Your task to perform on an android device: Show the shopping cart on walmart.com. Add alienware aurora to the cart on walmart.com Image 0: 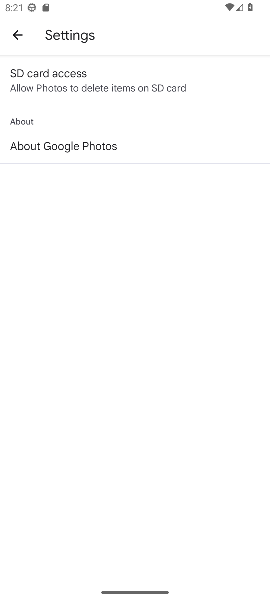
Step 0: press home button
Your task to perform on an android device: Show the shopping cart on walmart.com. Add alienware aurora to the cart on walmart.com Image 1: 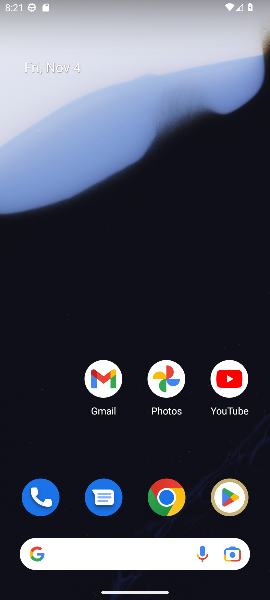
Step 1: click (167, 511)
Your task to perform on an android device: Show the shopping cart on walmart.com. Add alienware aurora to the cart on walmart.com Image 2: 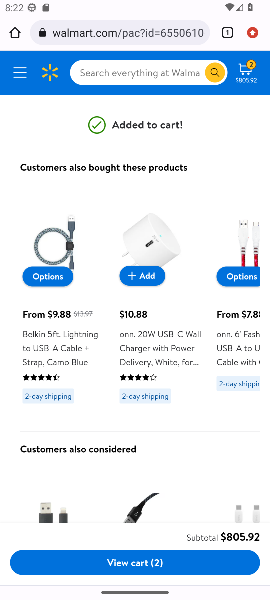
Step 2: click (254, 72)
Your task to perform on an android device: Show the shopping cart on walmart.com. Add alienware aurora to the cart on walmart.com Image 3: 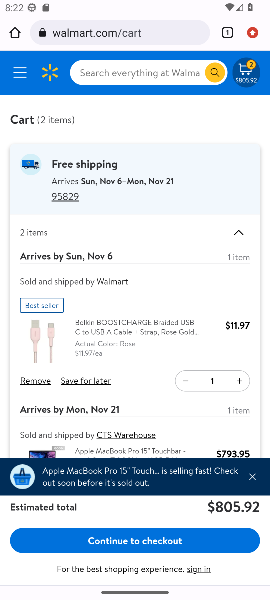
Step 3: click (147, 80)
Your task to perform on an android device: Show the shopping cart on walmart.com. Add alienware aurora to the cart on walmart.com Image 4: 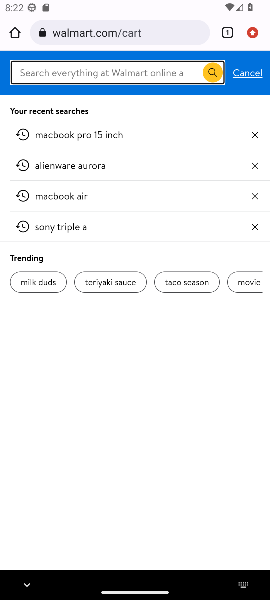
Step 4: type "alienware aurora"
Your task to perform on an android device: Show the shopping cart on walmart.com. Add alienware aurora to the cart on walmart.com Image 5: 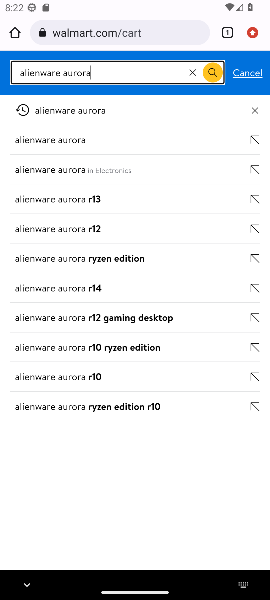
Step 5: click (67, 140)
Your task to perform on an android device: Show the shopping cart on walmart.com. Add alienware aurora to the cart on walmart.com Image 6: 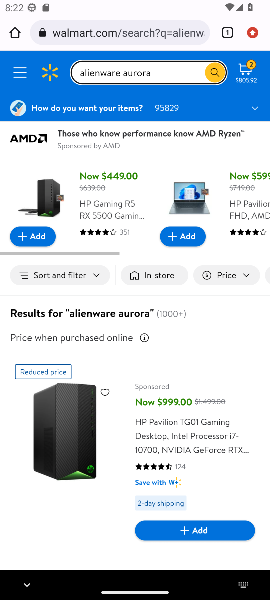
Step 6: drag from (105, 345) to (105, 154)
Your task to perform on an android device: Show the shopping cart on walmart.com. Add alienware aurora to the cart on walmart.com Image 7: 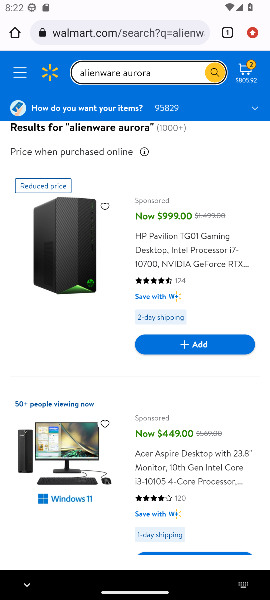
Step 7: drag from (143, 423) to (110, 119)
Your task to perform on an android device: Show the shopping cart on walmart.com. Add alienware aurora to the cart on walmart.com Image 8: 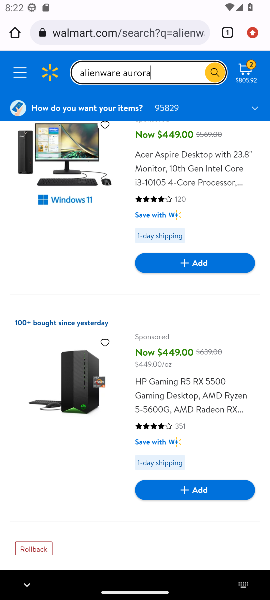
Step 8: drag from (122, 417) to (119, 174)
Your task to perform on an android device: Show the shopping cart on walmart.com. Add alienware aurora to the cart on walmart.com Image 9: 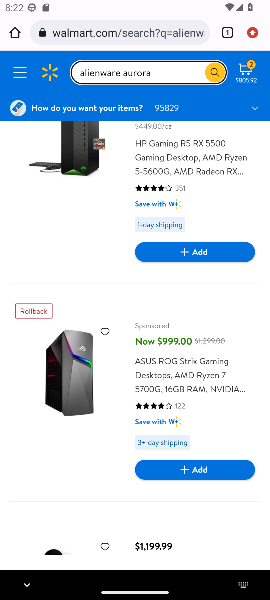
Step 9: drag from (130, 458) to (109, 231)
Your task to perform on an android device: Show the shopping cart on walmart.com. Add alienware aurora to the cart on walmart.com Image 10: 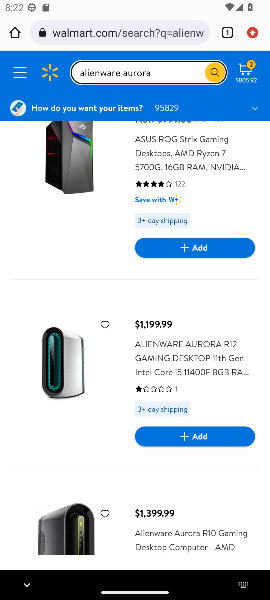
Step 10: click (134, 366)
Your task to perform on an android device: Show the shopping cart on walmart.com. Add alienware aurora to the cart on walmart.com Image 11: 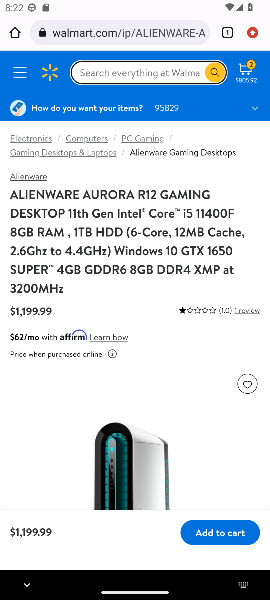
Step 11: click (217, 544)
Your task to perform on an android device: Show the shopping cart on walmart.com. Add alienware aurora to the cart on walmart.com Image 12: 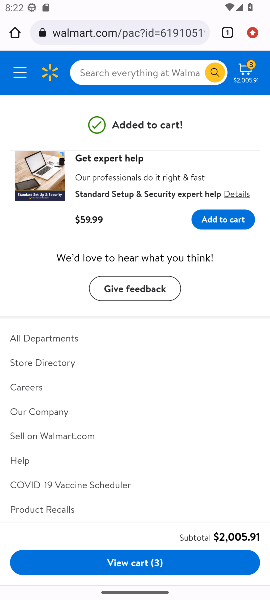
Step 12: task complete